Your task to perform on an android device: turn off smart reply in the gmail app Image 0: 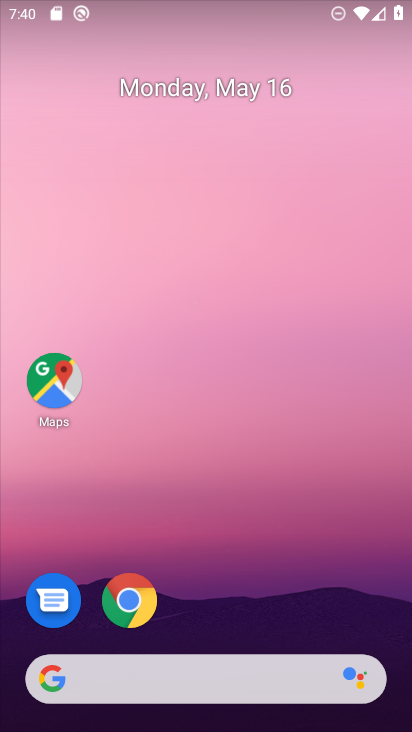
Step 0: drag from (150, 688) to (274, 216)
Your task to perform on an android device: turn off smart reply in the gmail app Image 1: 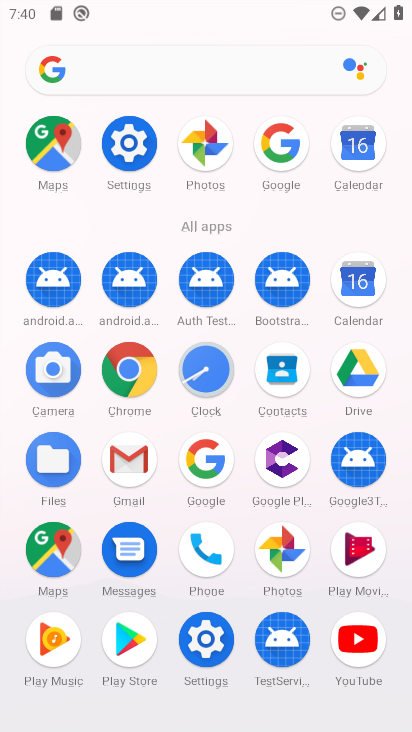
Step 1: click (138, 463)
Your task to perform on an android device: turn off smart reply in the gmail app Image 2: 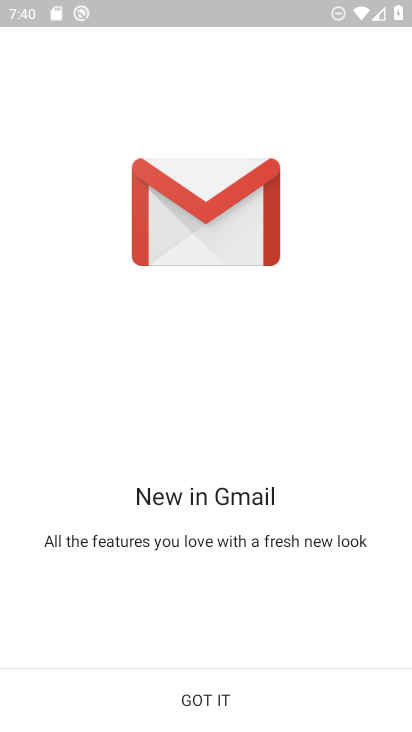
Step 2: click (209, 696)
Your task to perform on an android device: turn off smart reply in the gmail app Image 3: 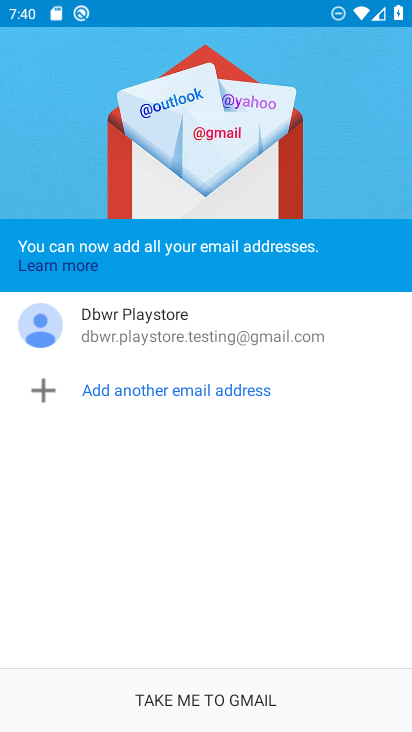
Step 3: click (209, 696)
Your task to perform on an android device: turn off smart reply in the gmail app Image 4: 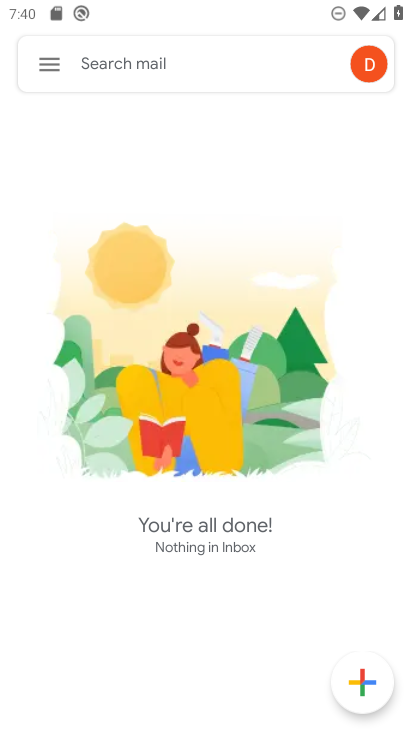
Step 4: click (47, 66)
Your task to perform on an android device: turn off smart reply in the gmail app Image 5: 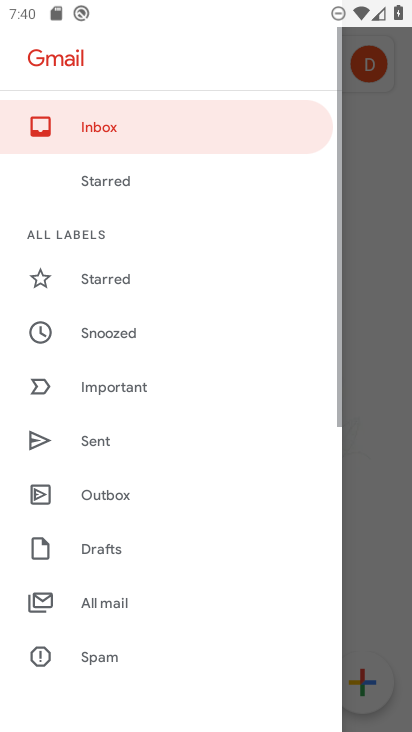
Step 5: drag from (170, 642) to (201, 175)
Your task to perform on an android device: turn off smart reply in the gmail app Image 6: 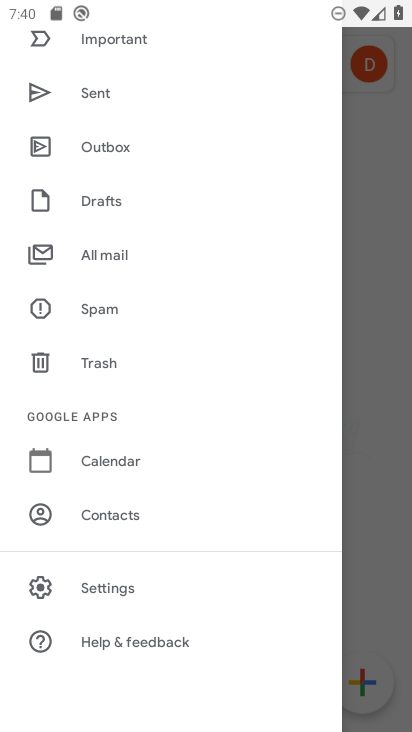
Step 6: click (129, 592)
Your task to perform on an android device: turn off smart reply in the gmail app Image 7: 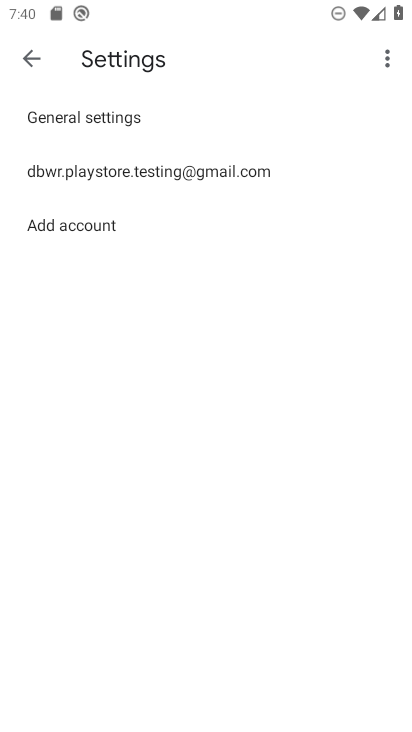
Step 7: click (249, 164)
Your task to perform on an android device: turn off smart reply in the gmail app Image 8: 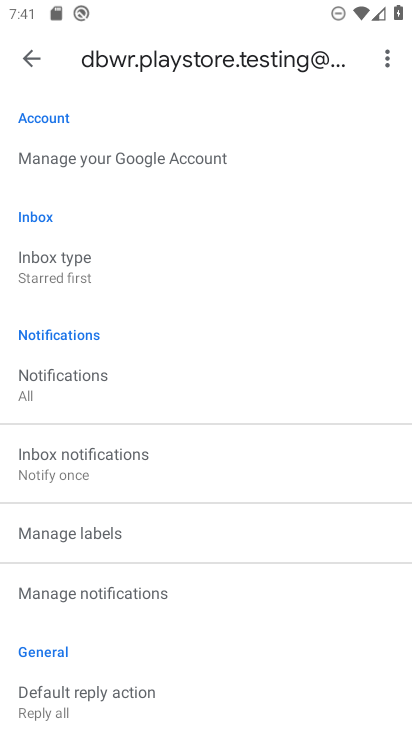
Step 8: drag from (206, 566) to (297, 66)
Your task to perform on an android device: turn off smart reply in the gmail app Image 9: 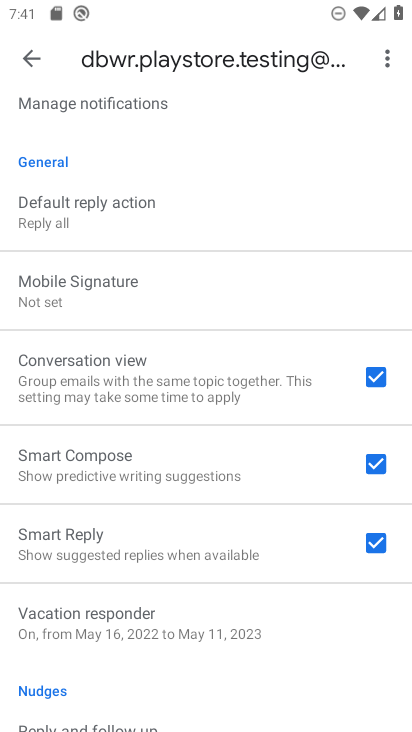
Step 9: click (380, 547)
Your task to perform on an android device: turn off smart reply in the gmail app Image 10: 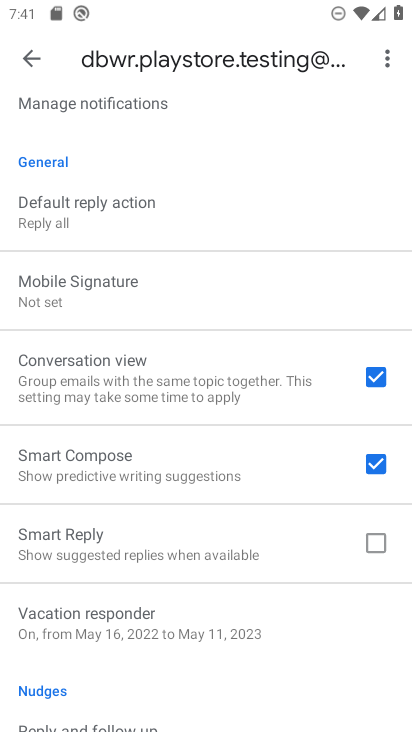
Step 10: task complete